Your task to perform on an android device: Open ESPN.com Image 0: 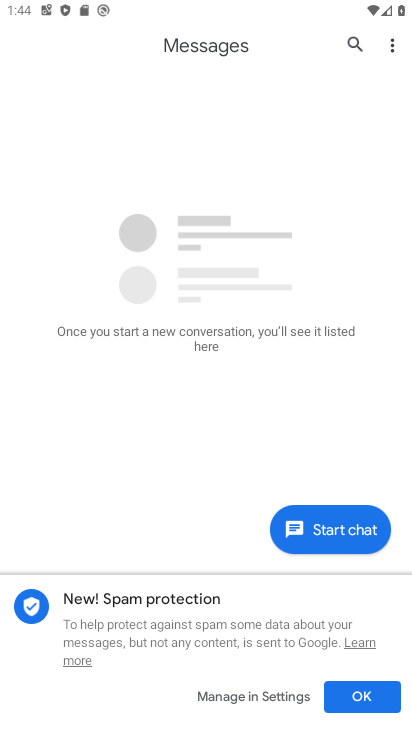
Step 0: press home button
Your task to perform on an android device: Open ESPN.com Image 1: 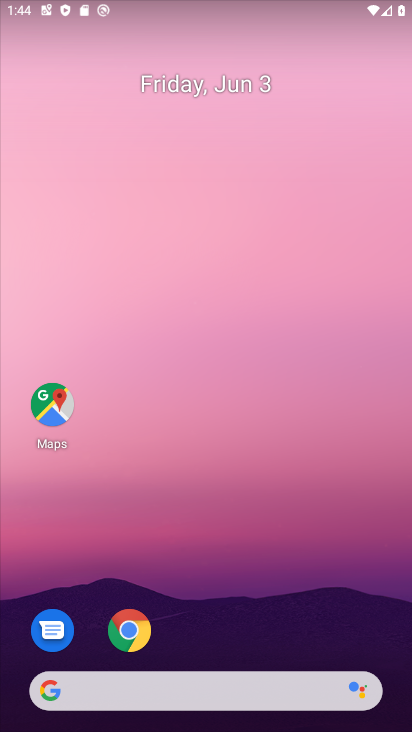
Step 1: click (131, 634)
Your task to perform on an android device: Open ESPN.com Image 2: 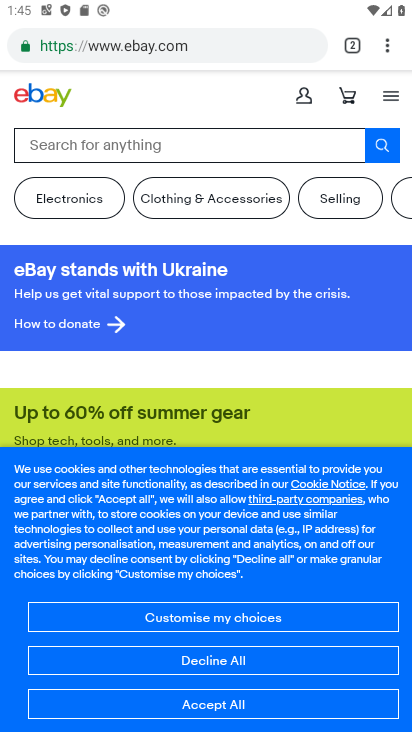
Step 2: click (388, 51)
Your task to perform on an android device: Open ESPN.com Image 3: 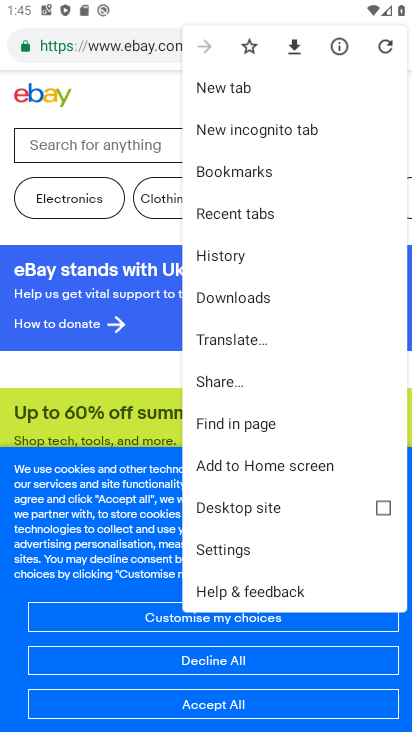
Step 3: click (233, 88)
Your task to perform on an android device: Open ESPN.com Image 4: 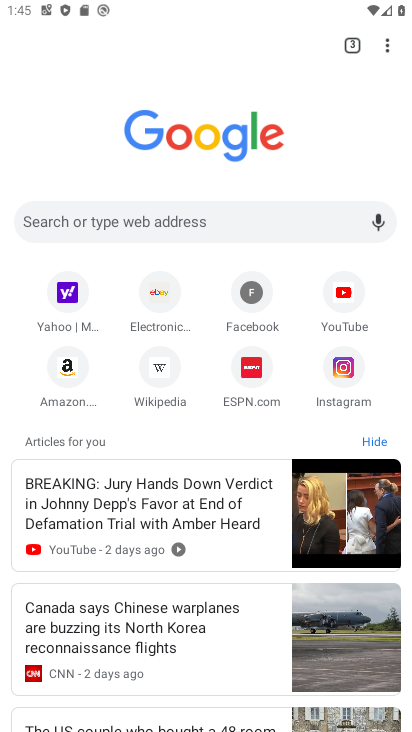
Step 4: click (248, 373)
Your task to perform on an android device: Open ESPN.com Image 5: 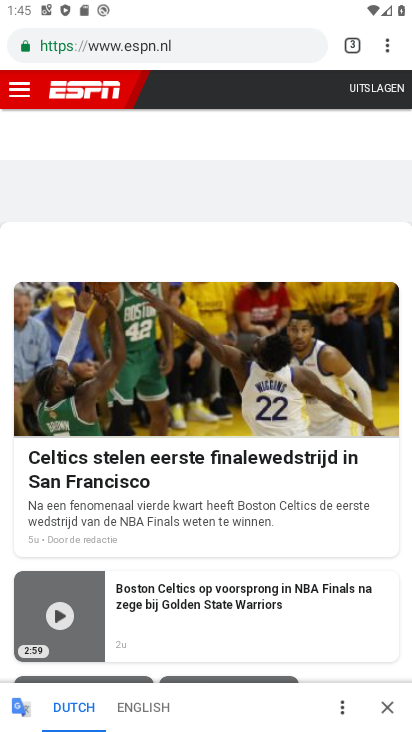
Step 5: task complete